Your task to perform on an android device: add a contact in the contacts app Image 0: 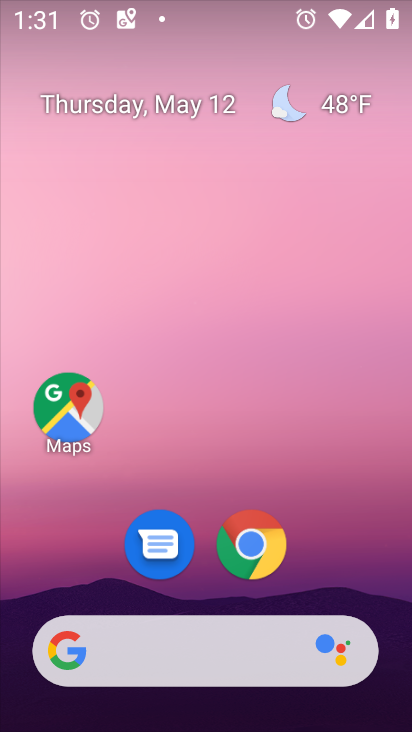
Step 0: drag from (357, 527) to (189, 35)
Your task to perform on an android device: add a contact in the contacts app Image 1: 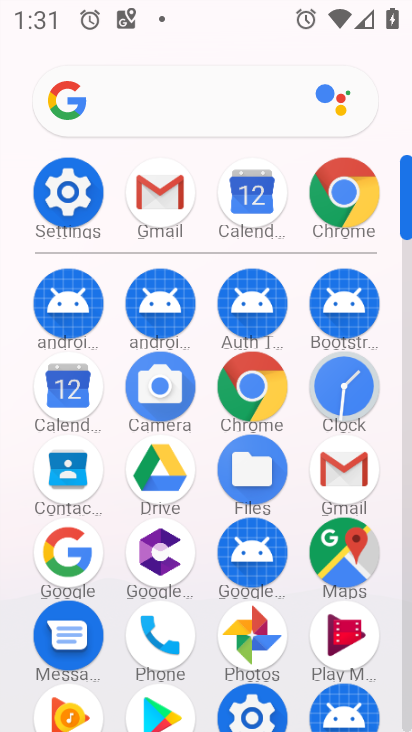
Step 1: drag from (18, 520) to (15, 269)
Your task to perform on an android device: add a contact in the contacts app Image 2: 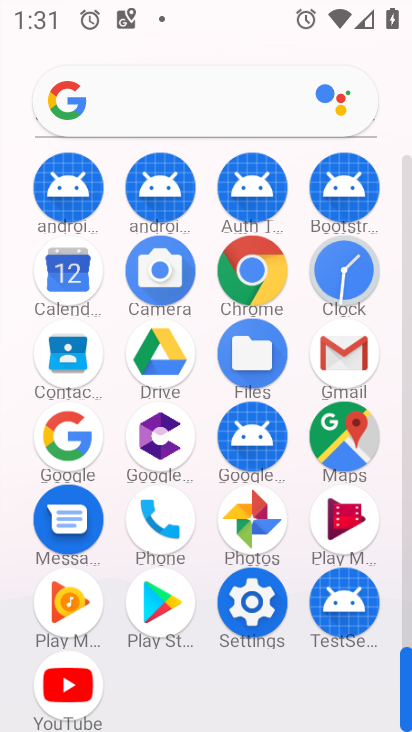
Step 2: click (61, 348)
Your task to perform on an android device: add a contact in the contacts app Image 3: 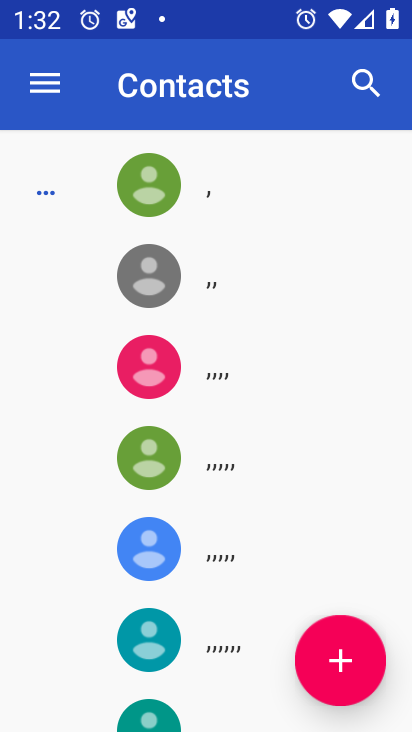
Step 3: click (327, 680)
Your task to perform on an android device: add a contact in the contacts app Image 4: 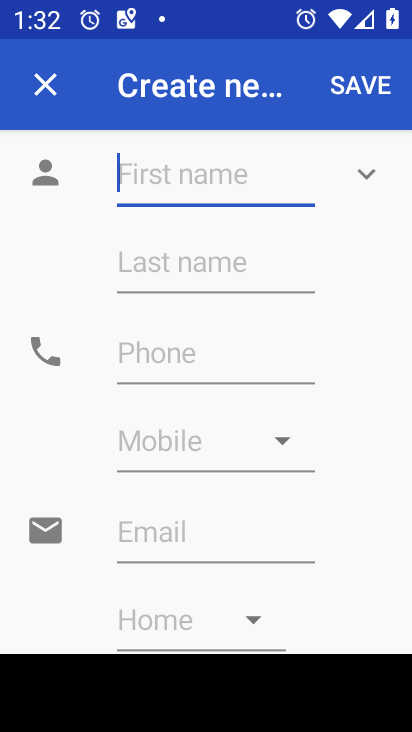
Step 4: click (173, 171)
Your task to perform on an android device: add a contact in the contacts app Image 5: 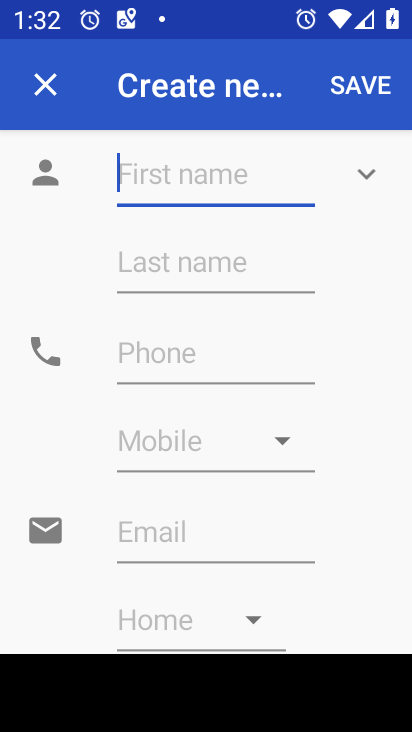
Step 5: type "DFGHJ"
Your task to perform on an android device: add a contact in the contacts app Image 6: 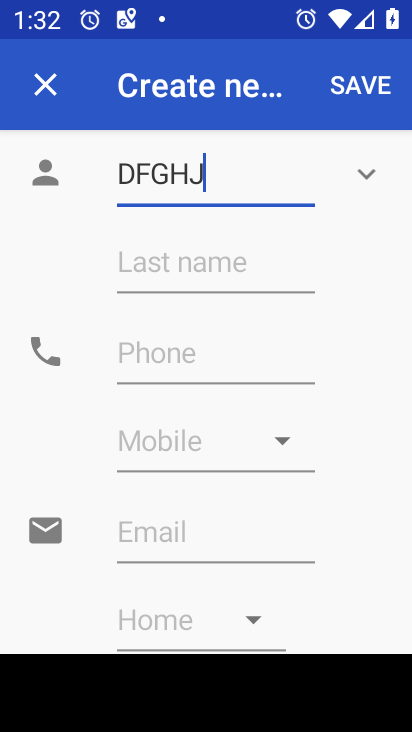
Step 6: type ""
Your task to perform on an android device: add a contact in the contacts app Image 7: 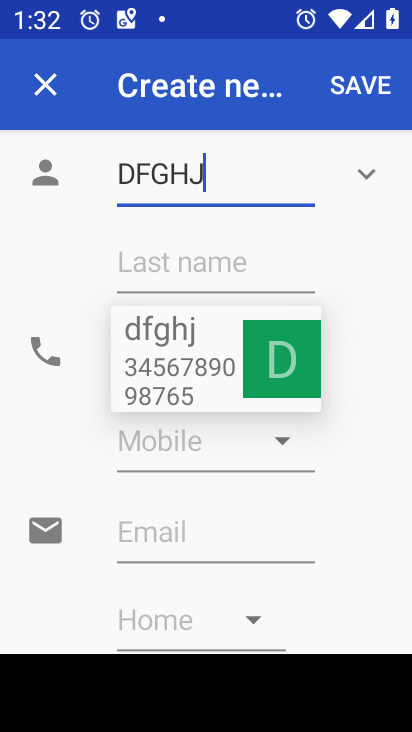
Step 7: click (178, 353)
Your task to perform on an android device: add a contact in the contacts app Image 8: 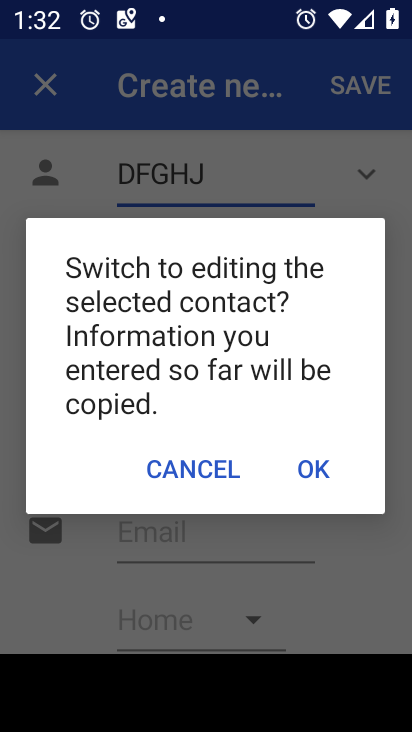
Step 8: click (323, 468)
Your task to perform on an android device: add a contact in the contacts app Image 9: 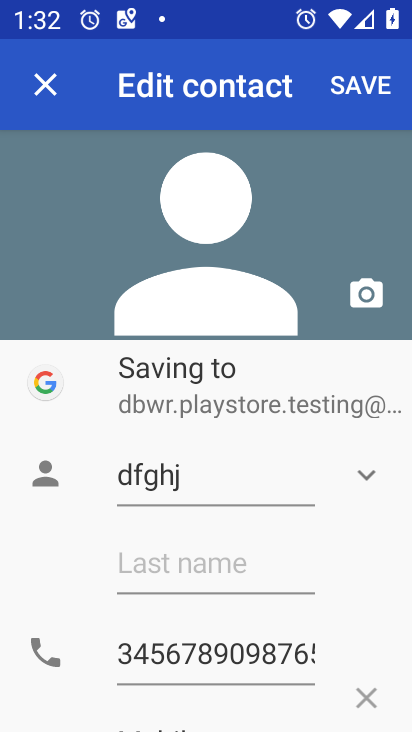
Step 9: click (359, 85)
Your task to perform on an android device: add a contact in the contacts app Image 10: 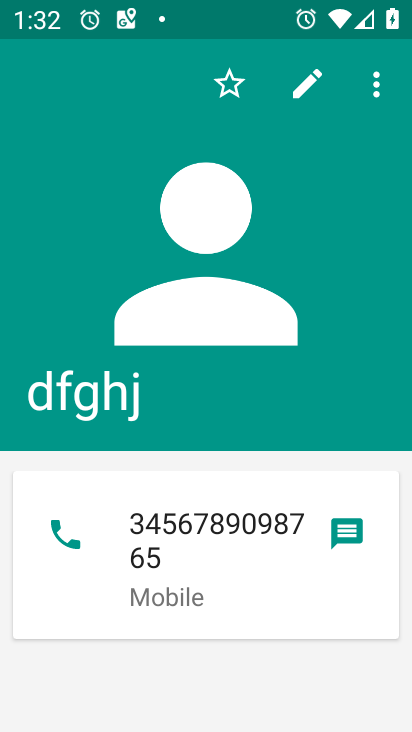
Step 10: task complete